Your task to perform on an android device: Do I have any events today? Image 0: 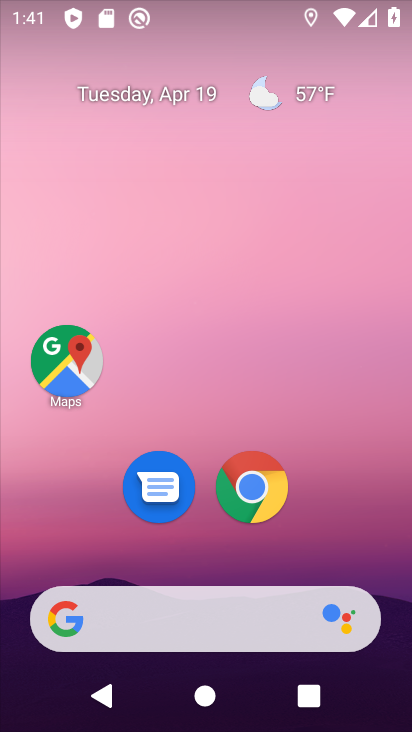
Step 0: drag from (356, 505) to (335, 146)
Your task to perform on an android device: Do I have any events today? Image 1: 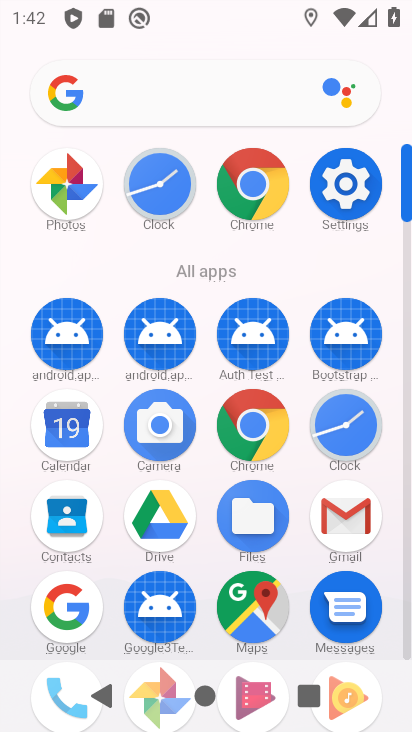
Step 1: click (52, 436)
Your task to perform on an android device: Do I have any events today? Image 2: 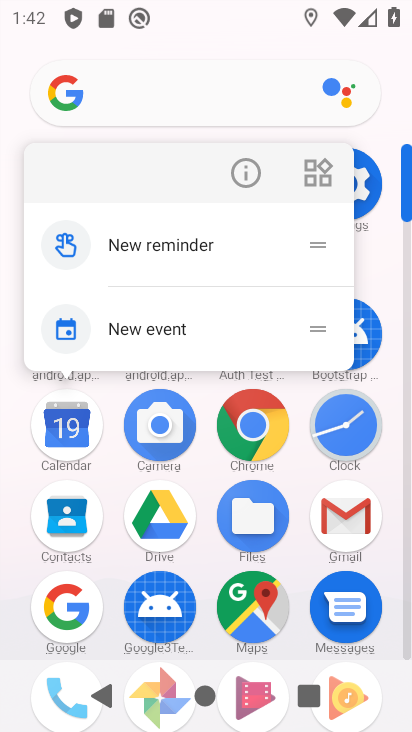
Step 2: click (75, 437)
Your task to perform on an android device: Do I have any events today? Image 3: 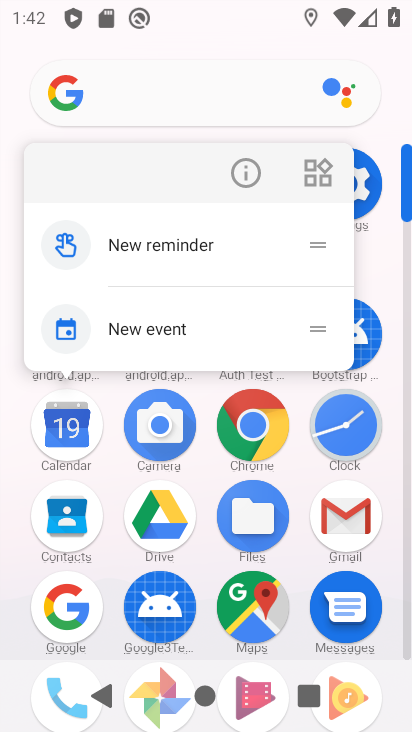
Step 3: click (76, 428)
Your task to perform on an android device: Do I have any events today? Image 4: 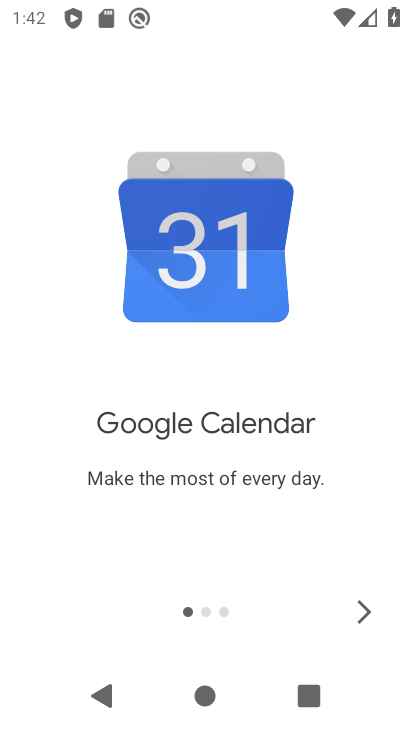
Step 4: click (361, 618)
Your task to perform on an android device: Do I have any events today? Image 5: 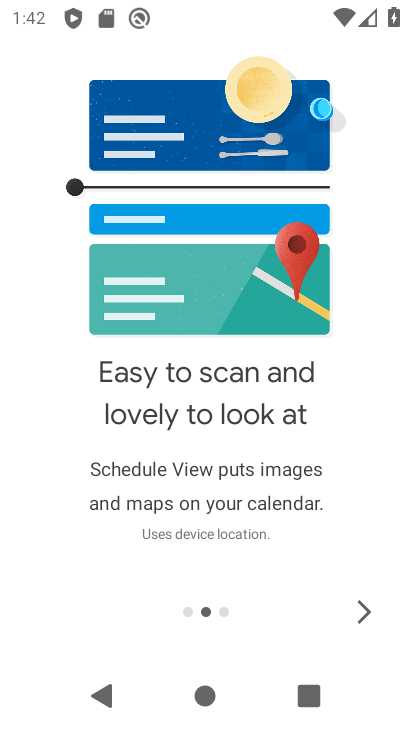
Step 5: click (362, 613)
Your task to perform on an android device: Do I have any events today? Image 6: 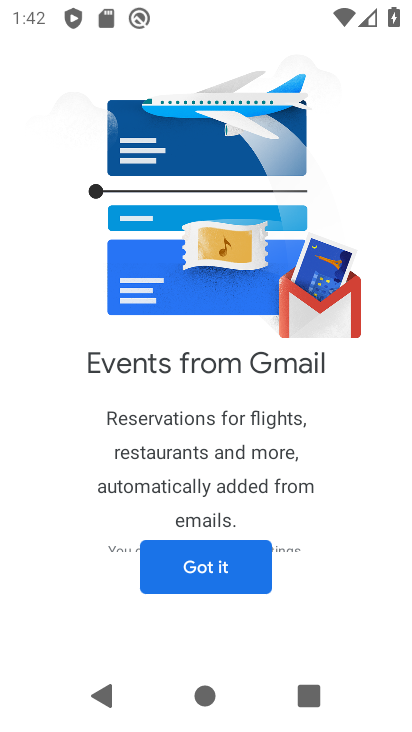
Step 6: click (192, 564)
Your task to perform on an android device: Do I have any events today? Image 7: 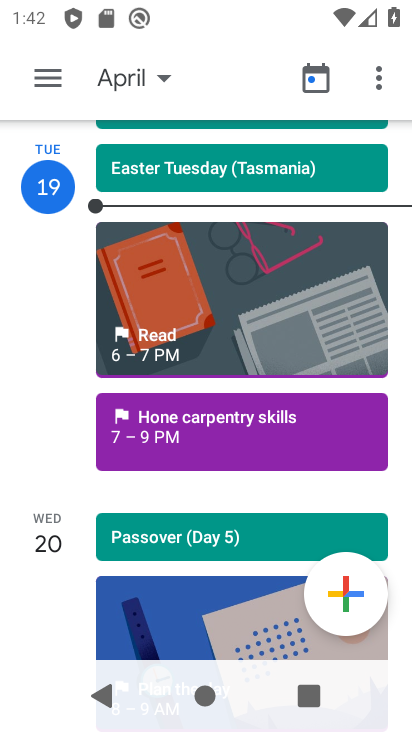
Step 7: task complete